Your task to perform on an android device: move a message to another label in the gmail app Image 0: 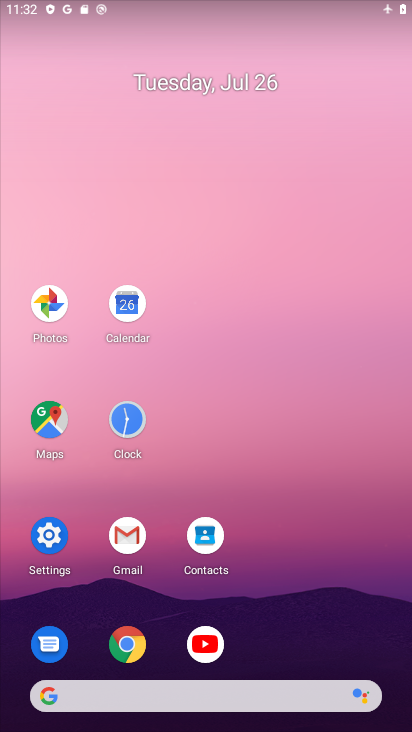
Step 0: click (124, 528)
Your task to perform on an android device: move a message to another label in the gmail app Image 1: 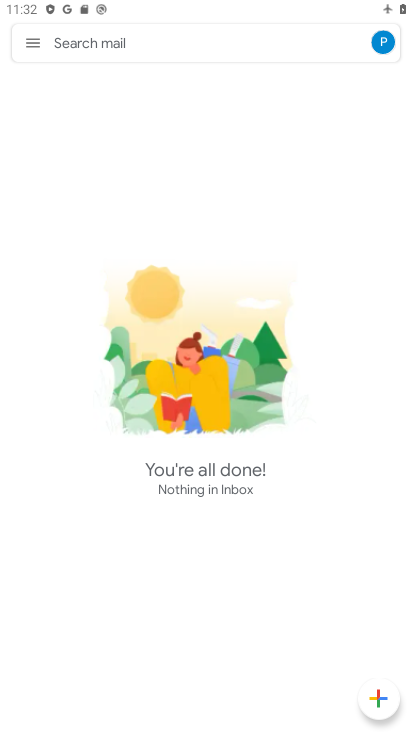
Step 1: click (30, 41)
Your task to perform on an android device: move a message to another label in the gmail app Image 2: 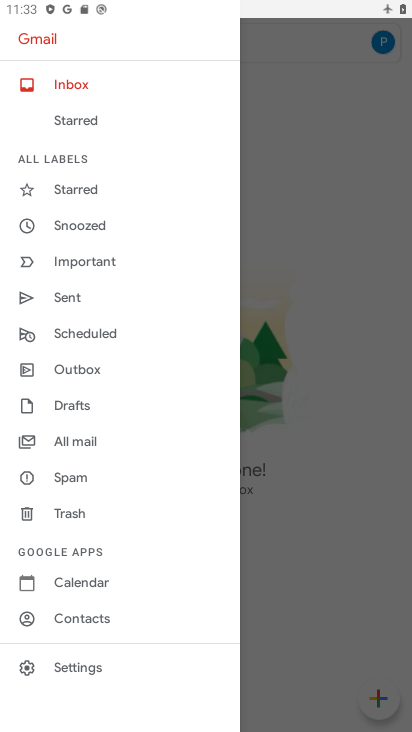
Step 2: click (73, 441)
Your task to perform on an android device: move a message to another label in the gmail app Image 3: 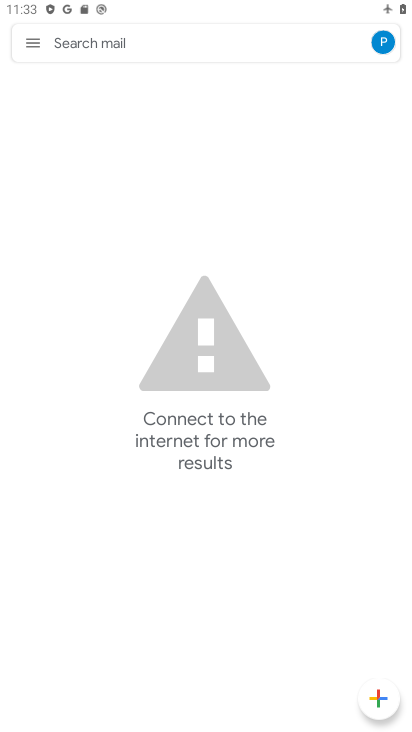
Step 3: task complete